Your task to perform on an android device: Open the stopwatch Image 0: 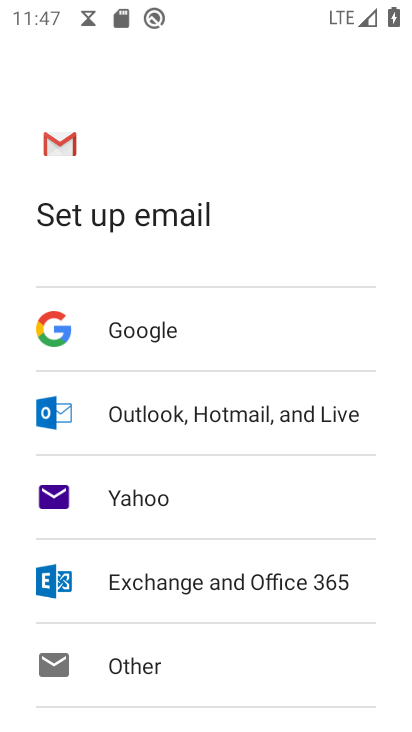
Step 0: press home button
Your task to perform on an android device: Open the stopwatch Image 1: 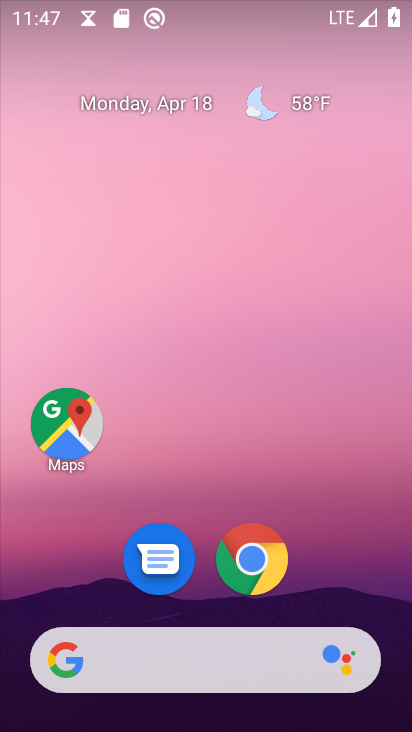
Step 1: drag from (318, 562) to (256, 59)
Your task to perform on an android device: Open the stopwatch Image 2: 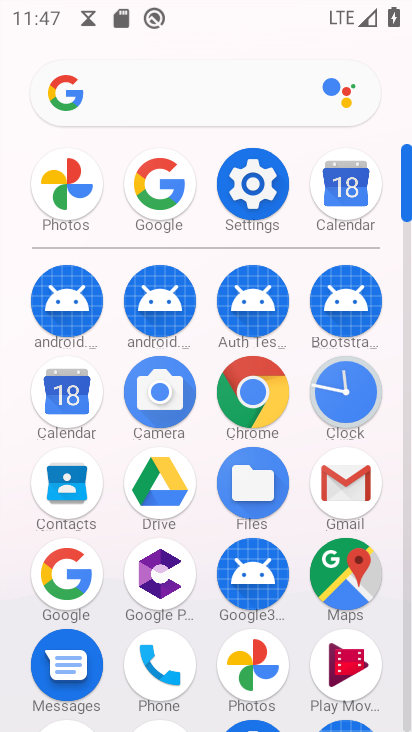
Step 2: click (353, 406)
Your task to perform on an android device: Open the stopwatch Image 3: 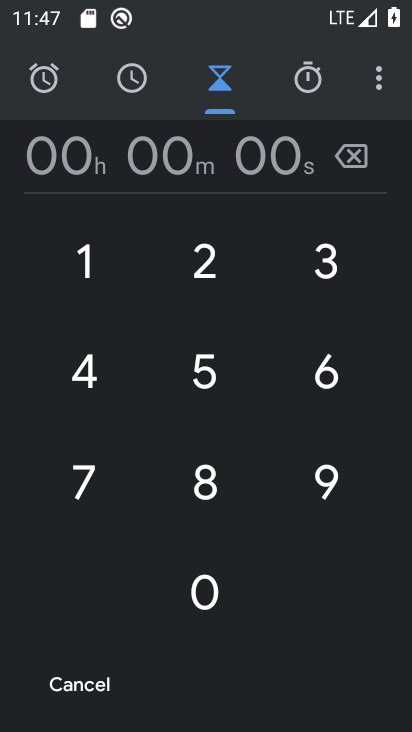
Step 3: click (308, 81)
Your task to perform on an android device: Open the stopwatch Image 4: 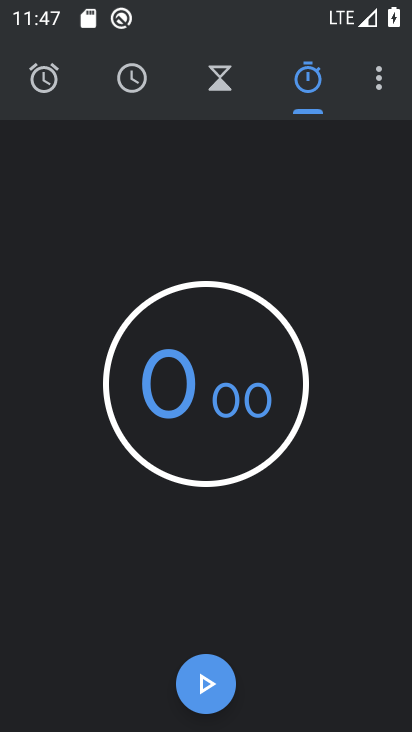
Step 4: click (194, 680)
Your task to perform on an android device: Open the stopwatch Image 5: 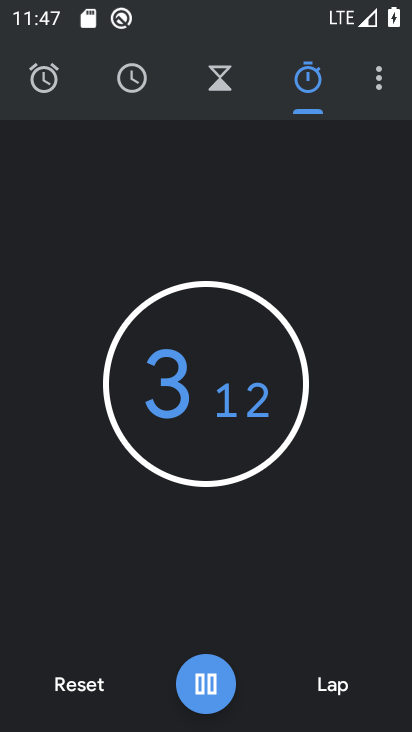
Step 5: click (333, 693)
Your task to perform on an android device: Open the stopwatch Image 6: 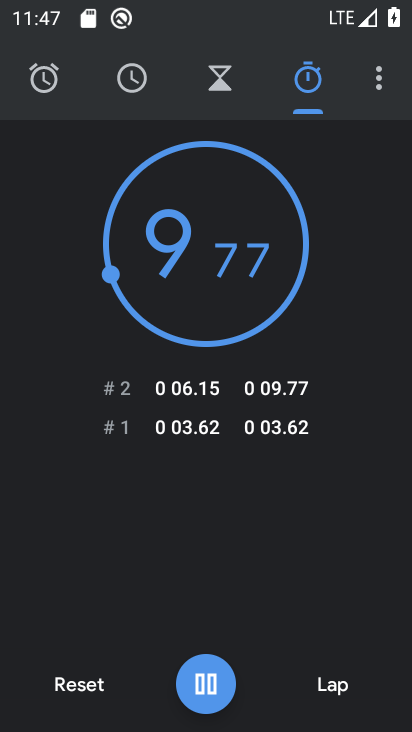
Step 6: click (333, 693)
Your task to perform on an android device: Open the stopwatch Image 7: 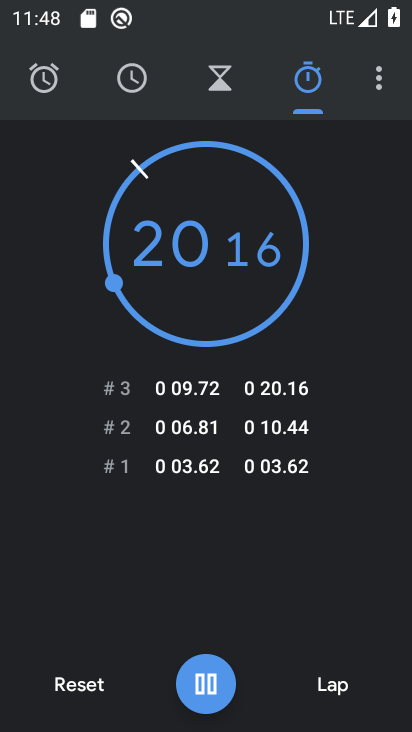
Step 7: click (335, 695)
Your task to perform on an android device: Open the stopwatch Image 8: 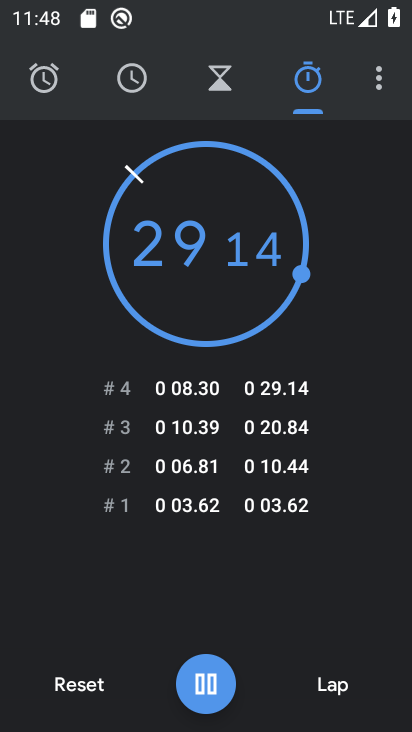
Step 8: click (335, 698)
Your task to perform on an android device: Open the stopwatch Image 9: 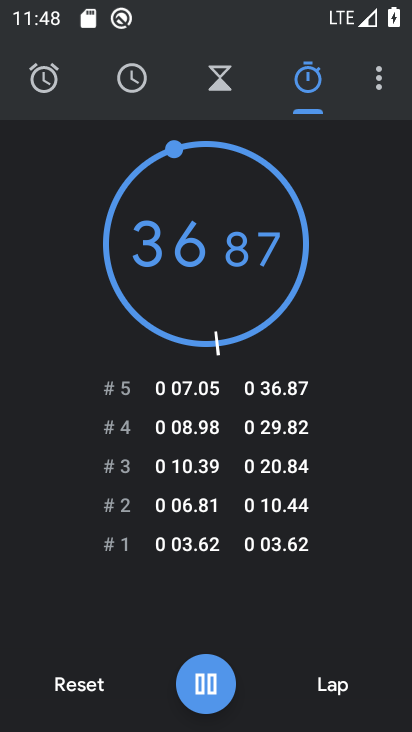
Step 9: click (340, 701)
Your task to perform on an android device: Open the stopwatch Image 10: 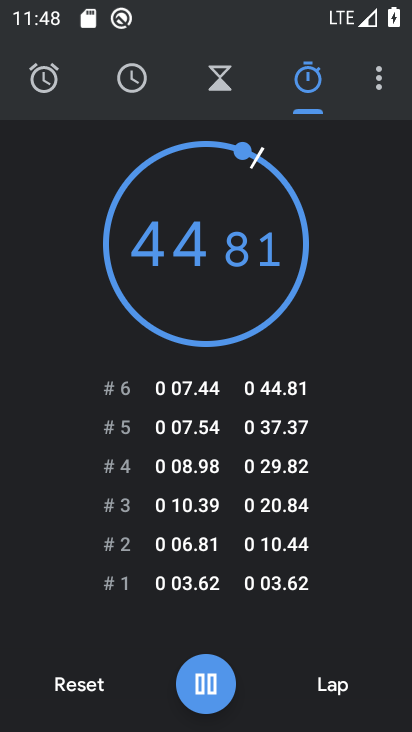
Step 10: click (202, 678)
Your task to perform on an android device: Open the stopwatch Image 11: 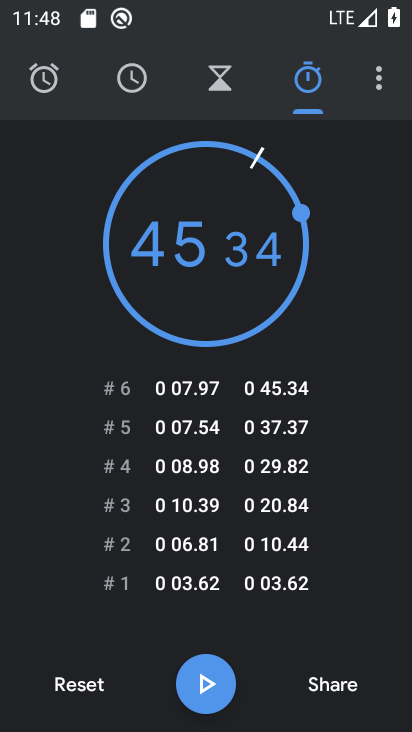
Step 11: task complete